Your task to perform on an android device: Open Chrome and go to the settings page Image 0: 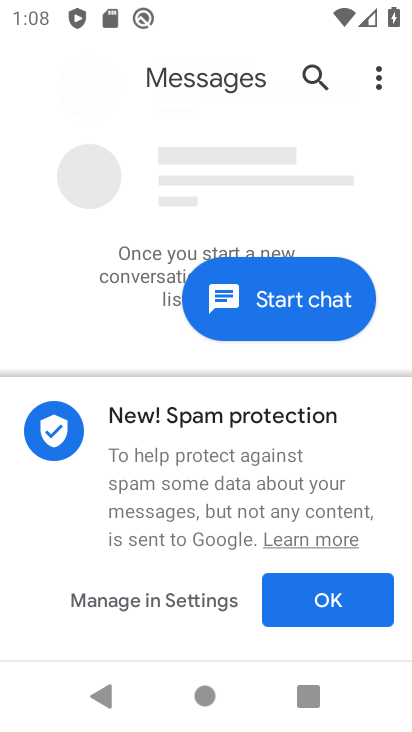
Step 0: press back button
Your task to perform on an android device: Open Chrome and go to the settings page Image 1: 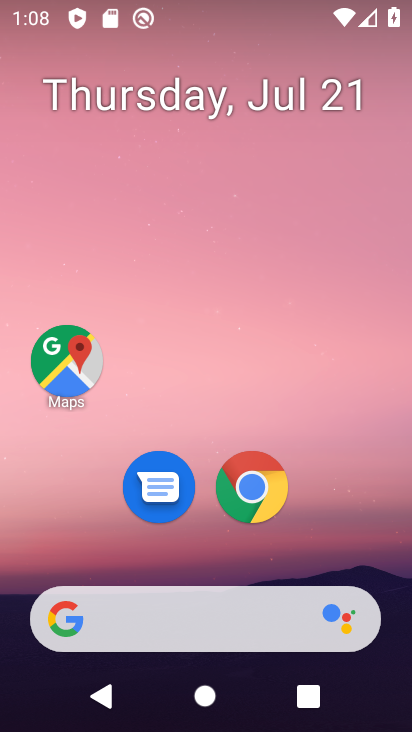
Step 1: click (246, 498)
Your task to perform on an android device: Open Chrome and go to the settings page Image 2: 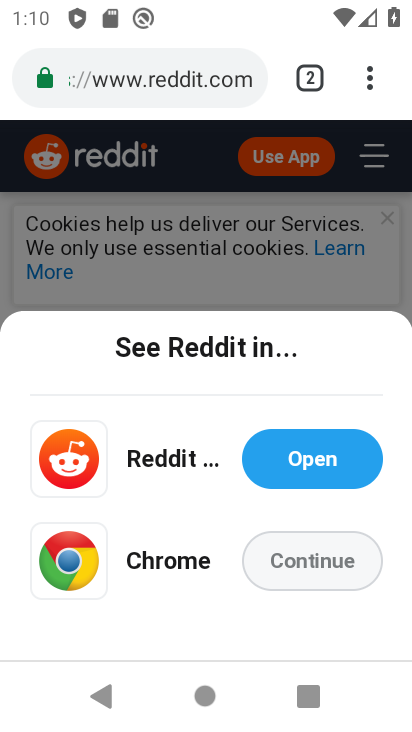
Step 2: task complete